Your task to perform on an android device: Open internet settings Image 0: 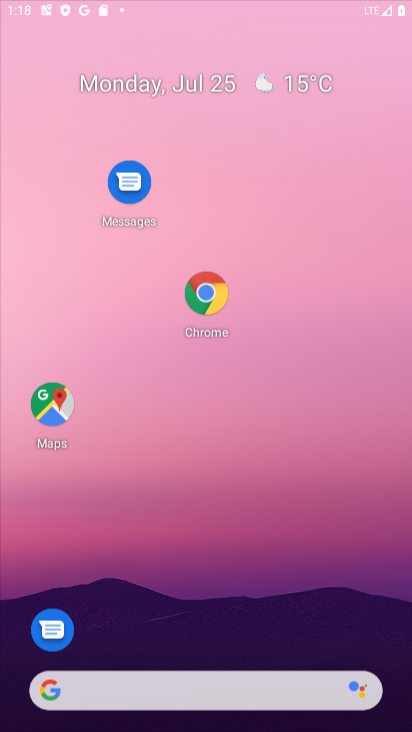
Step 0: press home button
Your task to perform on an android device: Open internet settings Image 1: 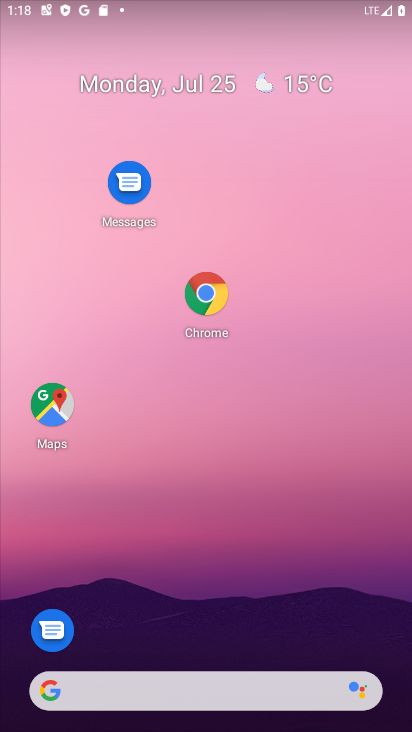
Step 1: drag from (320, 633) to (318, 589)
Your task to perform on an android device: Open internet settings Image 2: 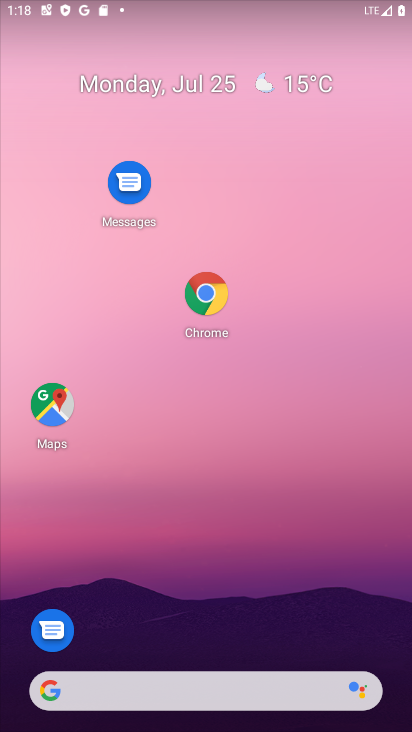
Step 2: drag from (308, 629) to (339, 38)
Your task to perform on an android device: Open internet settings Image 3: 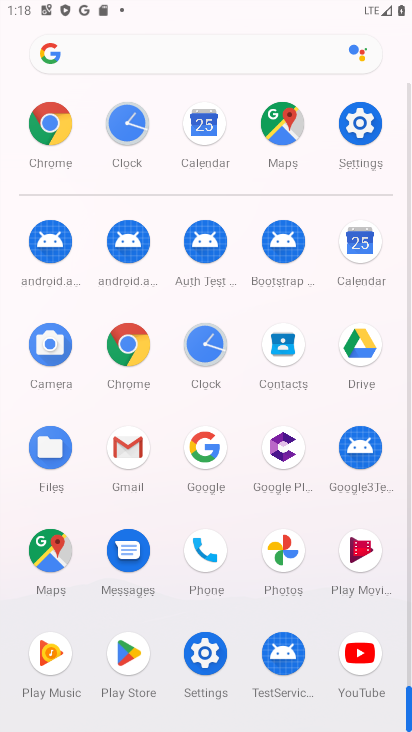
Step 3: click (376, 131)
Your task to perform on an android device: Open internet settings Image 4: 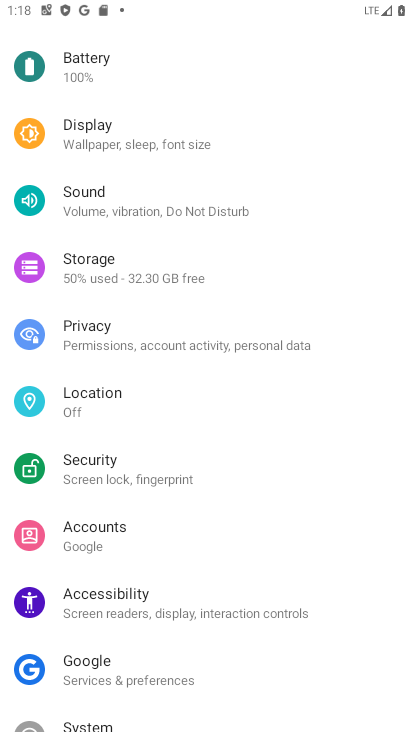
Step 4: drag from (223, 171) to (226, 353)
Your task to perform on an android device: Open internet settings Image 5: 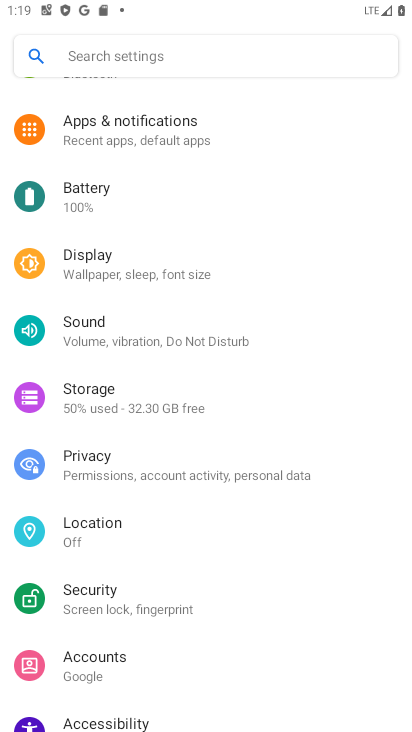
Step 5: drag from (115, 176) to (114, 639)
Your task to perform on an android device: Open internet settings Image 6: 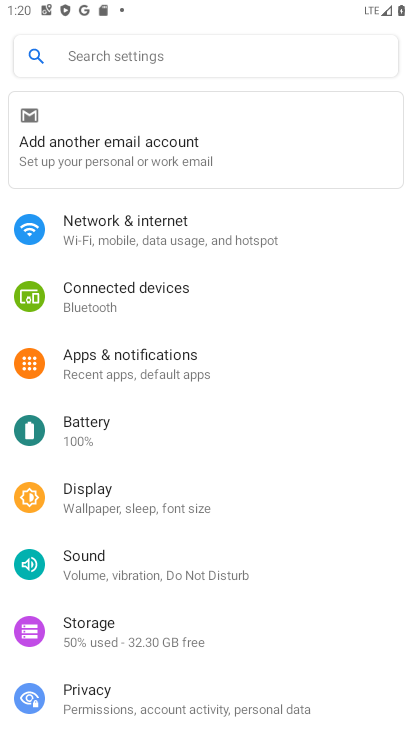
Step 6: click (105, 242)
Your task to perform on an android device: Open internet settings Image 7: 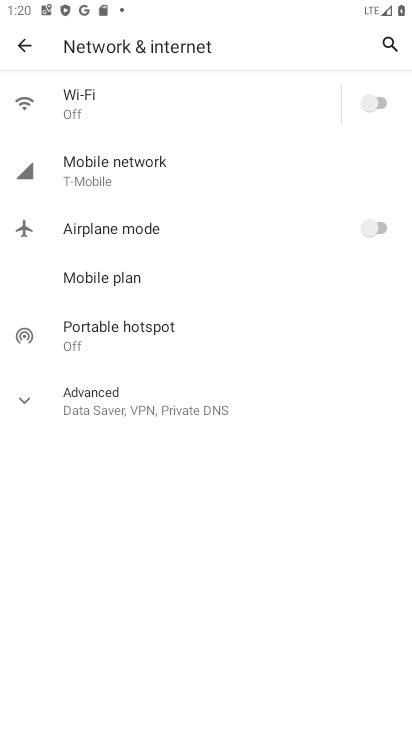
Step 7: task complete